Your task to perform on an android device: set default search engine in the chrome app Image 0: 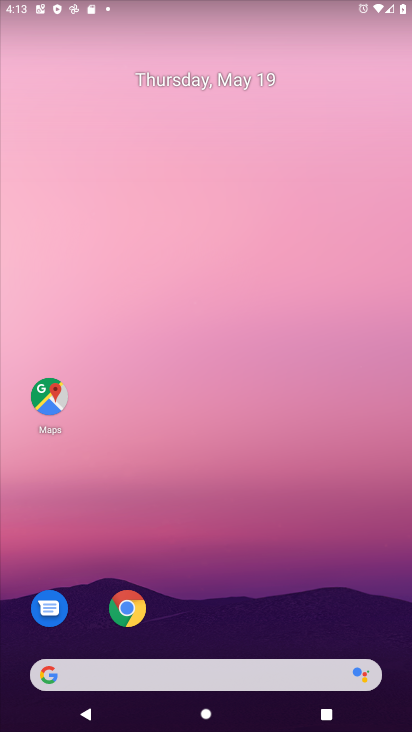
Step 0: drag from (267, 596) to (277, 139)
Your task to perform on an android device: set default search engine in the chrome app Image 1: 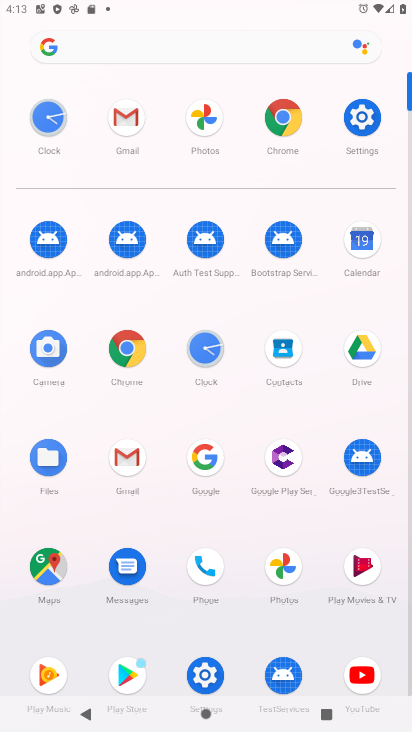
Step 1: click (277, 137)
Your task to perform on an android device: set default search engine in the chrome app Image 2: 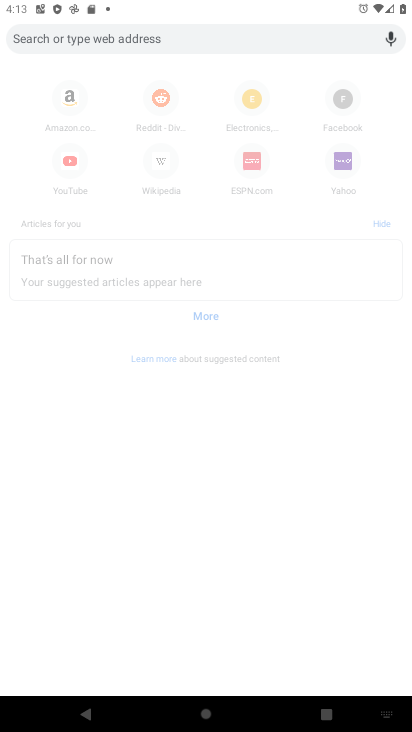
Step 2: click (86, 718)
Your task to perform on an android device: set default search engine in the chrome app Image 3: 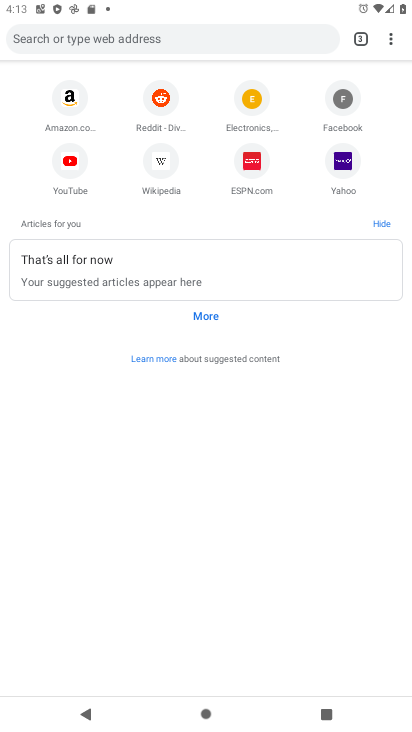
Step 3: click (392, 49)
Your task to perform on an android device: set default search engine in the chrome app Image 4: 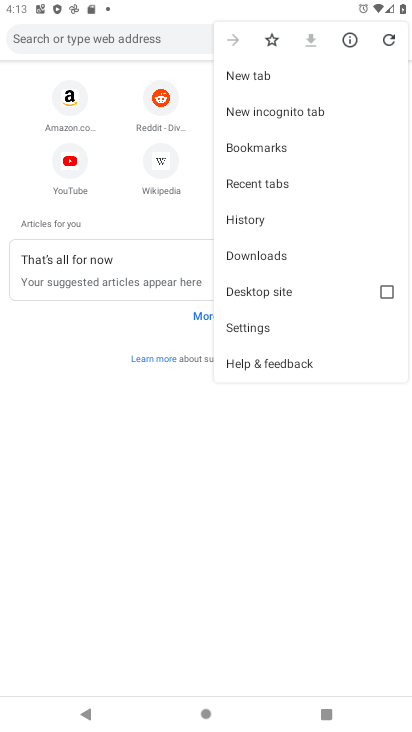
Step 4: click (264, 323)
Your task to perform on an android device: set default search engine in the chrome app Image 5: 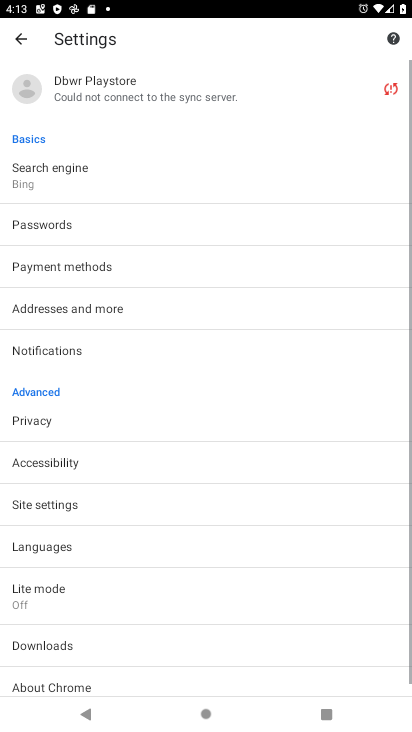
Step 5: click (85, 157)
Your task to perform on an android device: set default search engine in the chrome app Image 6: 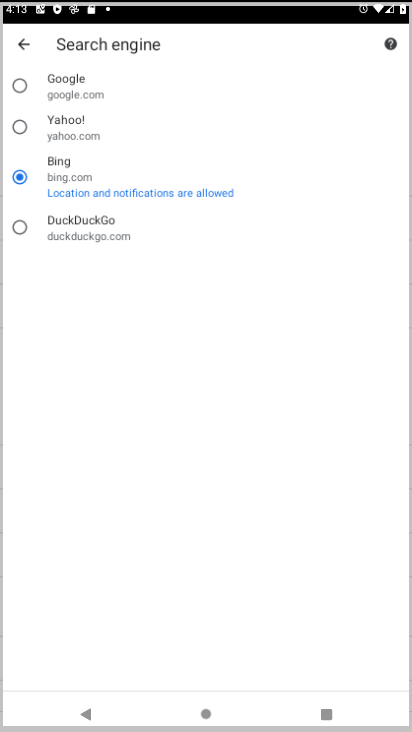
Step 6: click (90, 273)
Your task to perform on an android device: set default search engine in the chrome app Image 7: 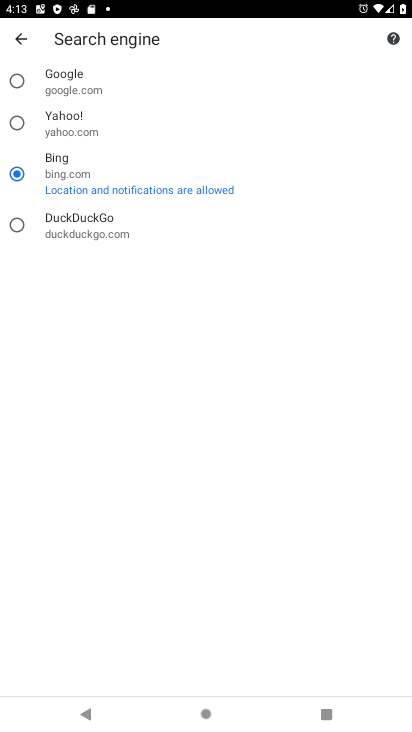
Step 7: click (106, 172)
Your task to perform on an android device: set default search engine in the chrome app Image 8: 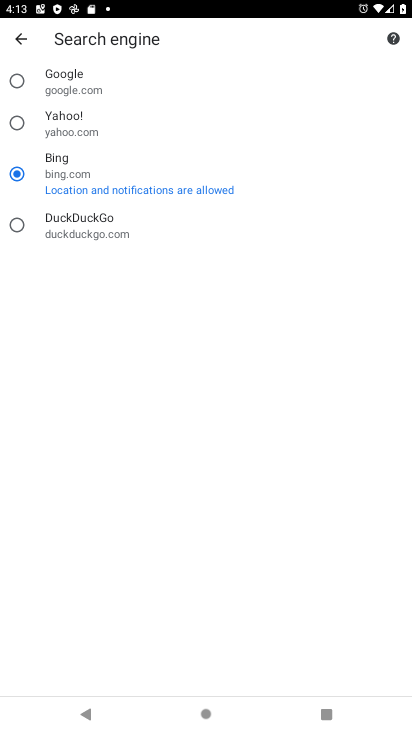
Step 8: task complete